Your task to perform on an android device: Open Maps and search for coffee Image 0: 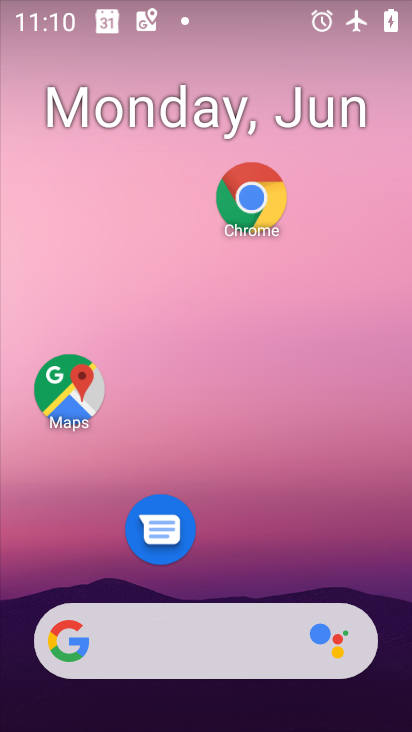
Step 0: click (39, 387)
Your task to perform on an android device: Open Maps and search for coffee Image 1: 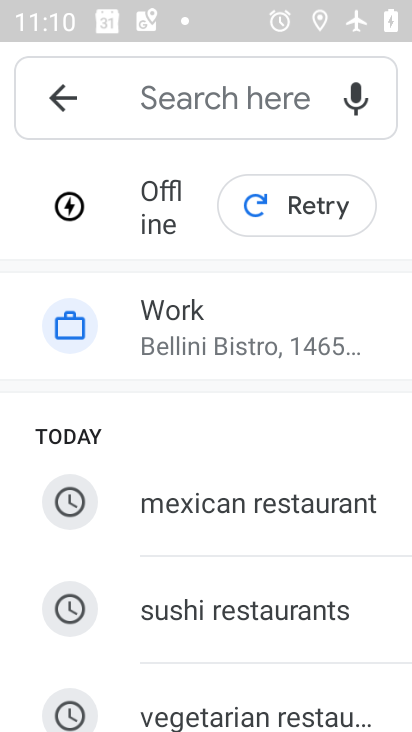
Step 1: click (57, 88)
Your task to perform on an android device: Open Maps and search for coffee Image 2: 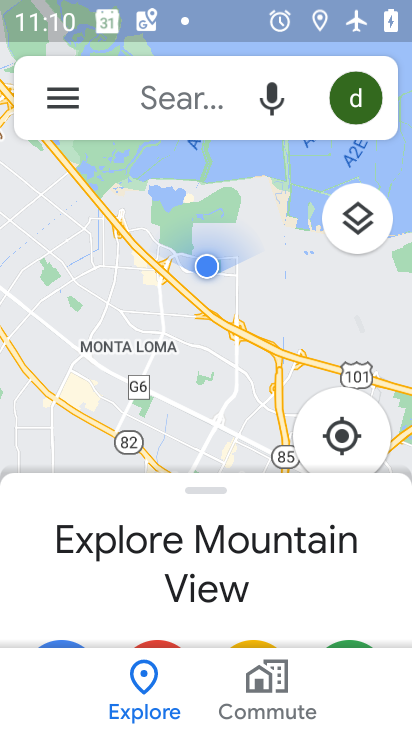
Step 2: task complete